Your task to perform on an android device: change your default location settings in chrome Image 0: 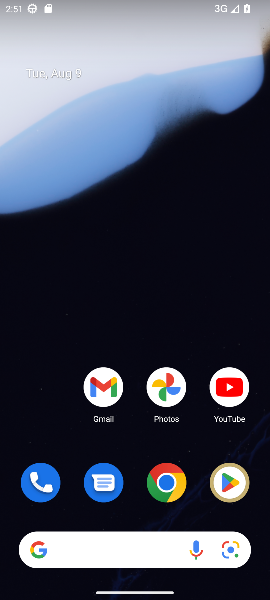
Step 0: click (171, 503)
Your task to perform on an android device: change your default location settings in chrome Image 1: 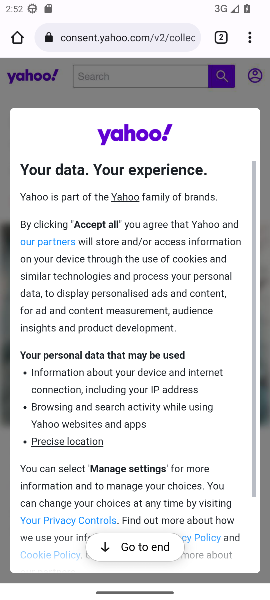
Step 1: click (251, 30)
Your task to perform on an android device: change your default location settings in chrome Image 2: 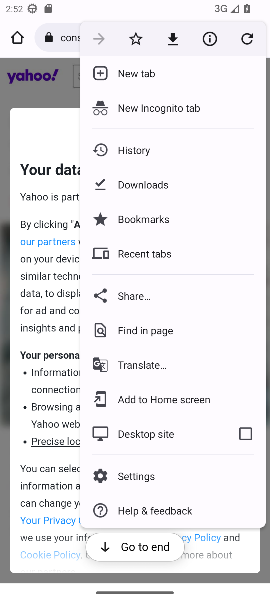
Step 2: click (148, 473)
Your task to perform on an android device: change your default location settings in chrome Image 3: 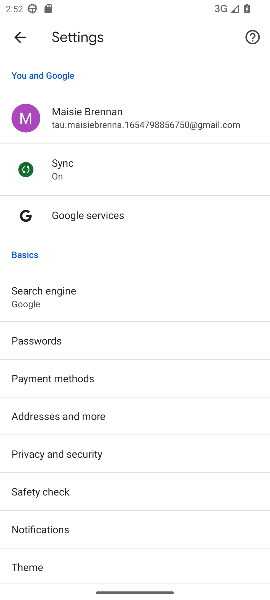
Step 3: drag from (92, 538) to (122, 299)
Your task to perform on an android device: change your default location settings in chrome Image 4: 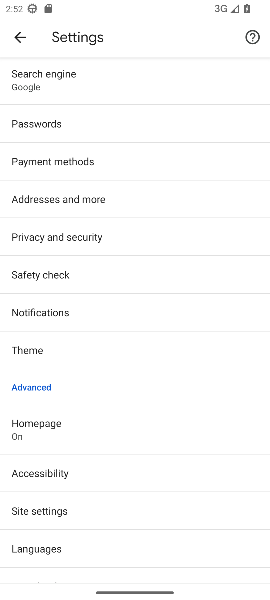
Step 4: click (90, 513)
Your task to perform on an android device: change your default location settings in chrome Image 5: 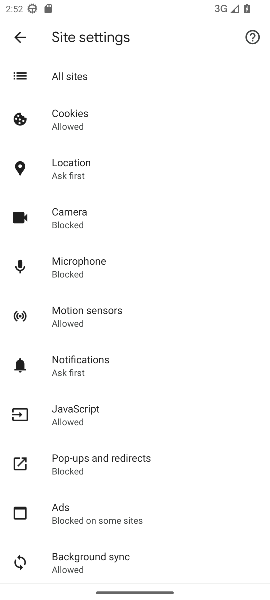
Step 5: click (93, 171)
Your task to perform on an android device: change your default location settings in chrome Image 6: 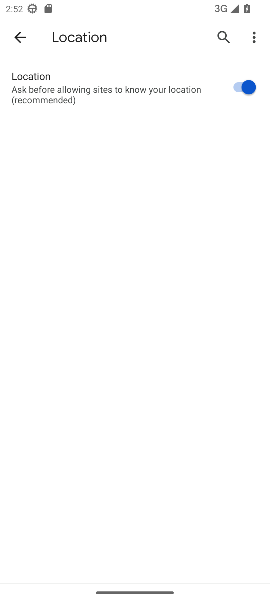
Step 6: click (235, 88)
Your task to perform on an android device: change your default location settings in chrome Image 7: 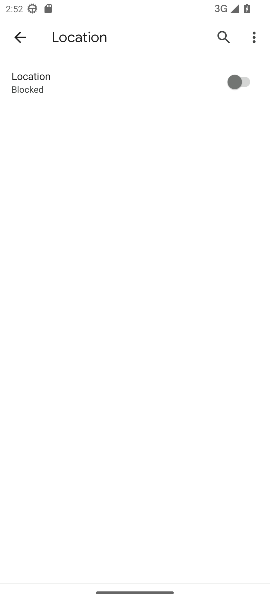
Step 7: task complete